Your task to perform on an android device: change timer sound Image 0: 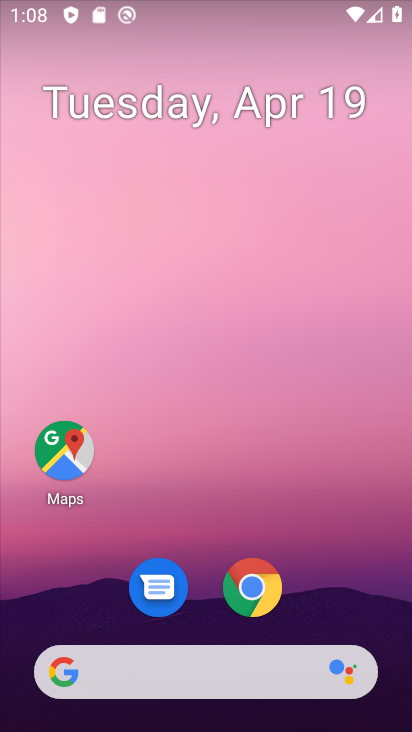
Step 0: drag from (209, 618) to (246, 21)
Your task to perform on an android device: change timer sound Image 1: 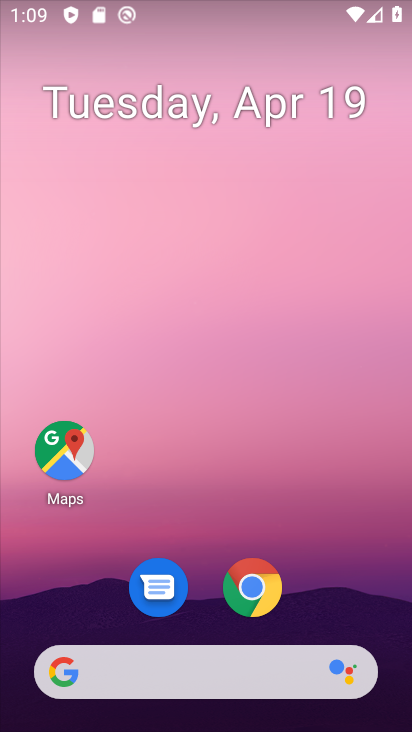
Step 1: drag from (313, 579) to (344, 96)
Your task to perform on an android device: change timer sound Image 2: 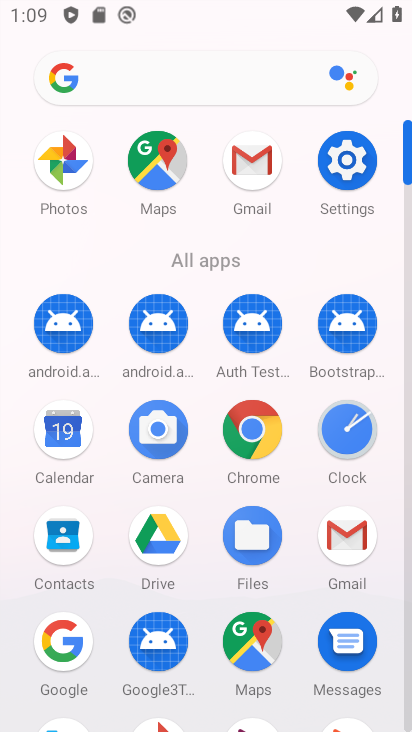
Step 2: click (346, 419)
Your task to perform on an android device: change timer sound Image 3: 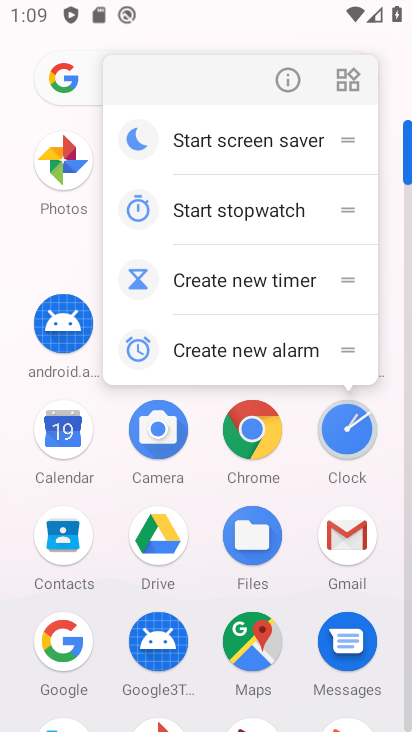
Step 3: click (346, 419)
Your task to perform on an android device: change timer sound Image 4: 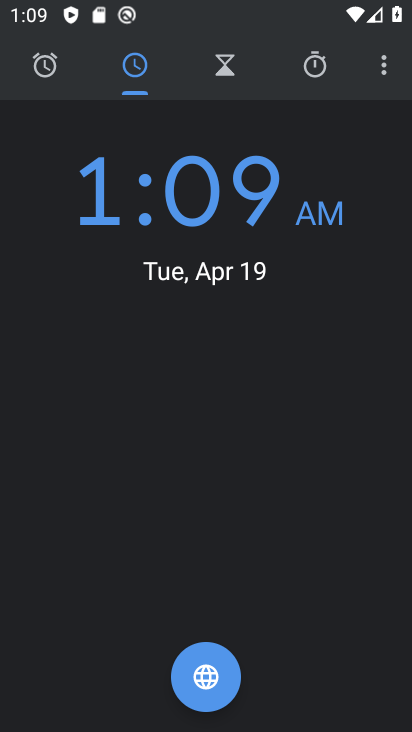
Step 4: click (368, 61)
Your task to perform on an android device: change timer sound Image 5: 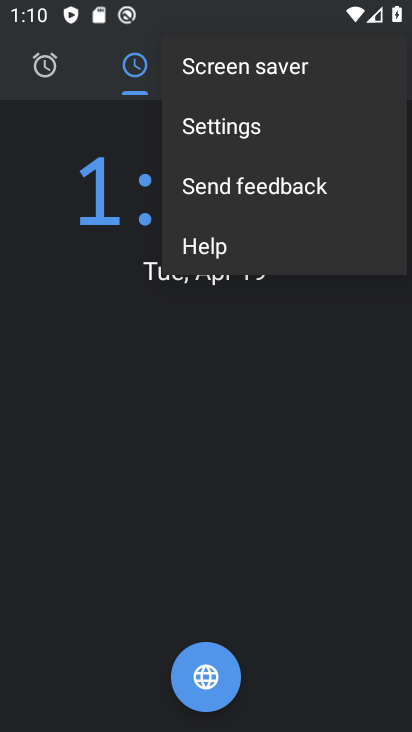
Step 5: click (277, 122)
Your task to perform on an android device: change timer sound Image 6: 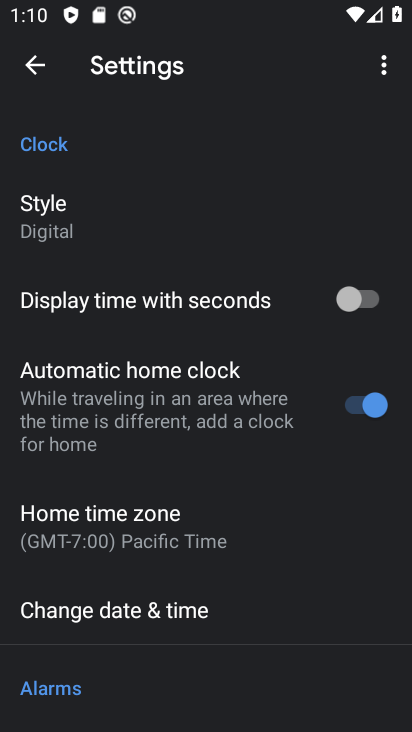
Step 6: drag from (243, 601) to (269, 102)
Your task to perform on an android device: change timer sound Image 7: 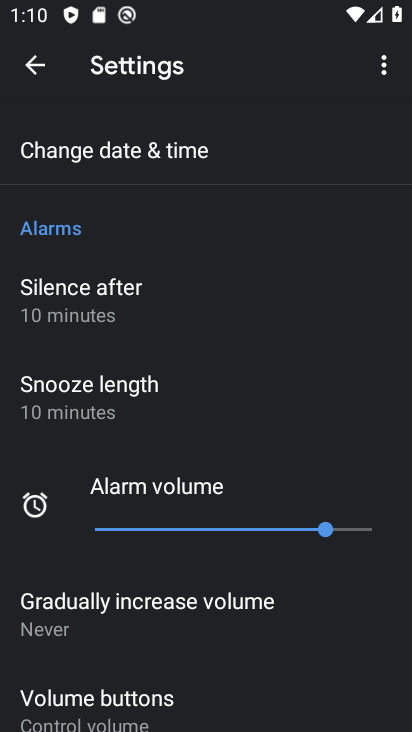
Step 7: drag from (218, 659) to (225, 47)
Your task to perform on an android device: change timer sound Image 8: 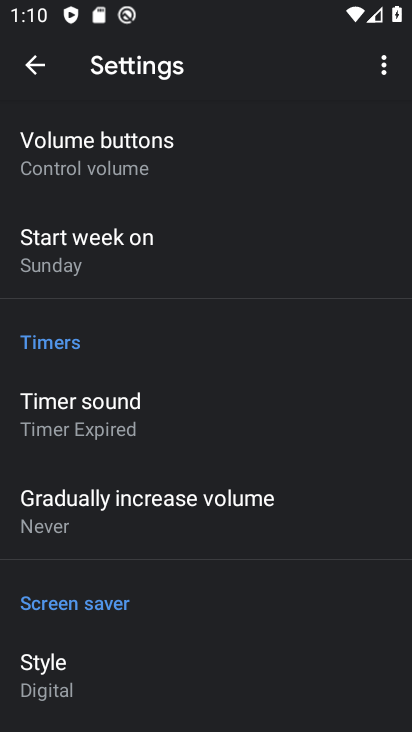
Step 8: click (152, 418)
Your task to perform on an android device: change timer sound Image 9: 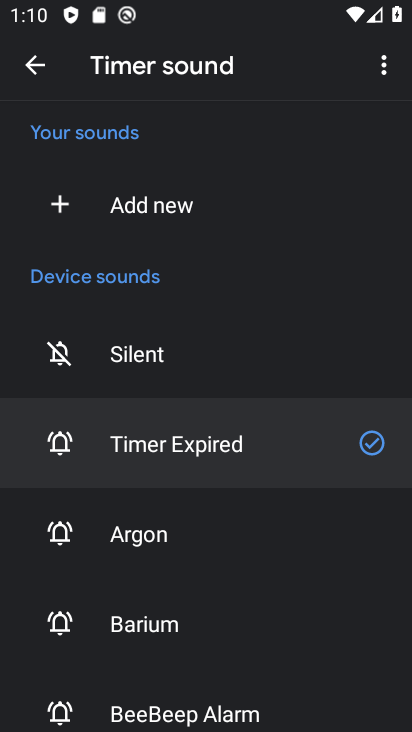
Step 9: click (196, 624)
Your task to perform on an android device: change timer sound Image 10: 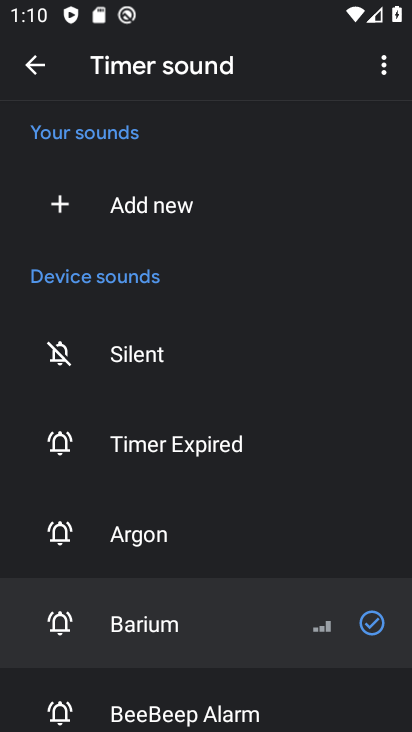
Step 10: task complete